Your task to perform on an android device: turn vacation reply on in the gmail app Image 0: 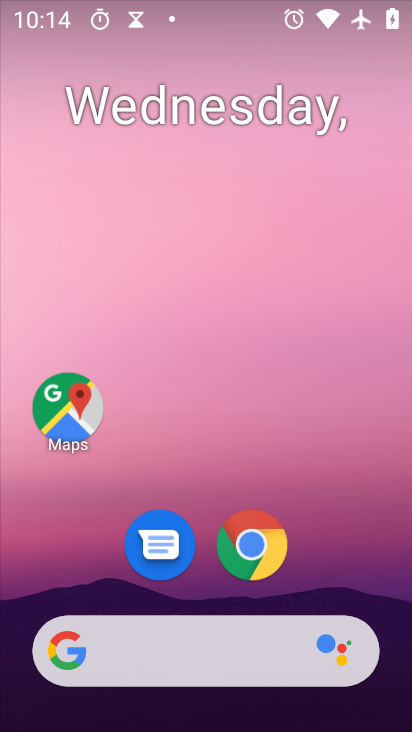
Step 0: press home button
Your task to perform on an android device: turn vacation reply on in the gmail app Image 1: 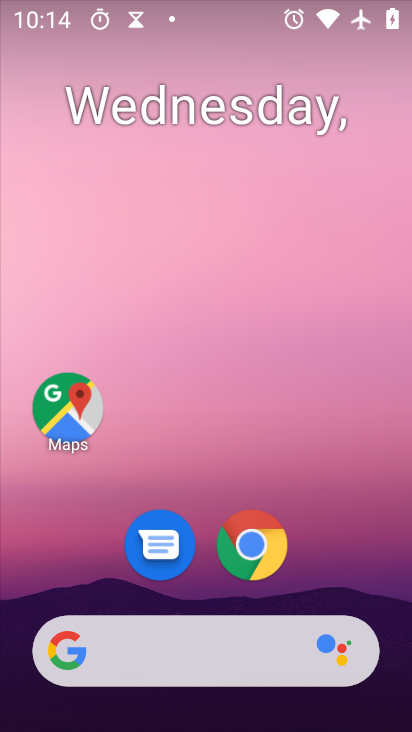
Step 1: drag from (198, 648) to (282, 169)
Your task to perform on an android device: turn vacation reply on in the gmail app Image 2: 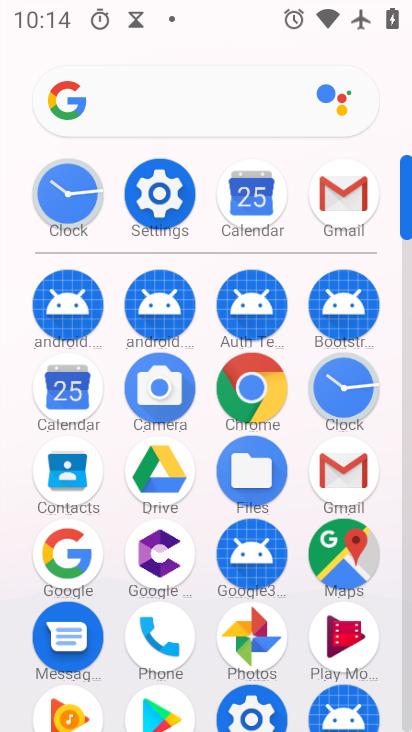
Step 2: click (347, 199)
Your task to perform on an android device: turn vacation reply on in the gmail app Image 3: 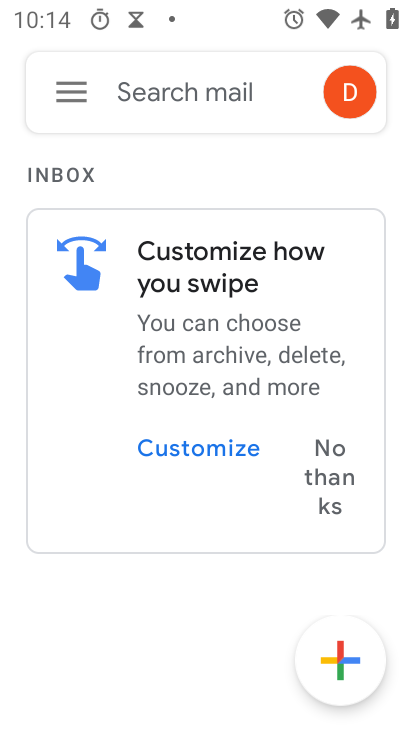
Step 3: click (79, 91)
Your task to perform on an android device: turn vacation reply on in the gmail app Image 4: 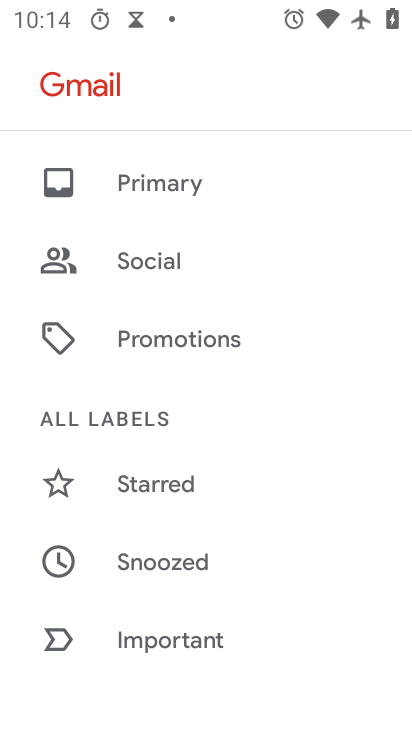
Step 4: drag from (216, 672) to (257, 175)
Your task to perform on an android device: turn vacation reply on in the gmail app Image 5: 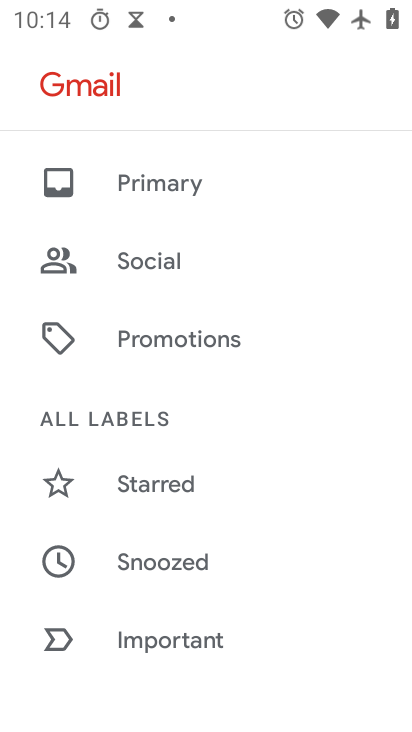
Step 5: drag from (256, 627) to (335, 143)
Your task to perform on an android device: turn vacation reply on in the gmail app Image 6: 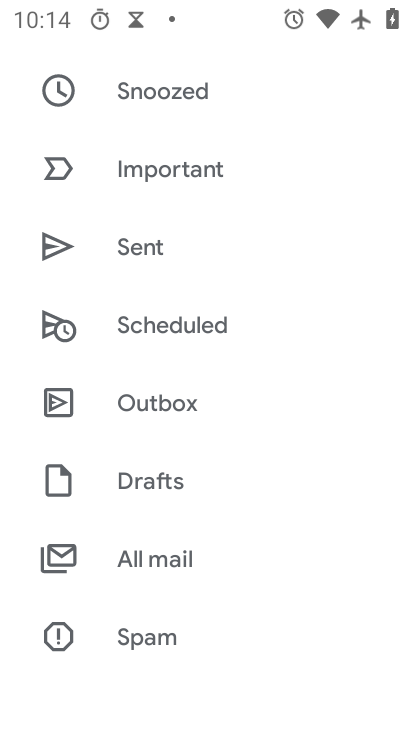
Step 6: drag from (210, 662) to (297, 121)
Your task to perform on an android device: turn vacation reply on in the gmail app Image 7: 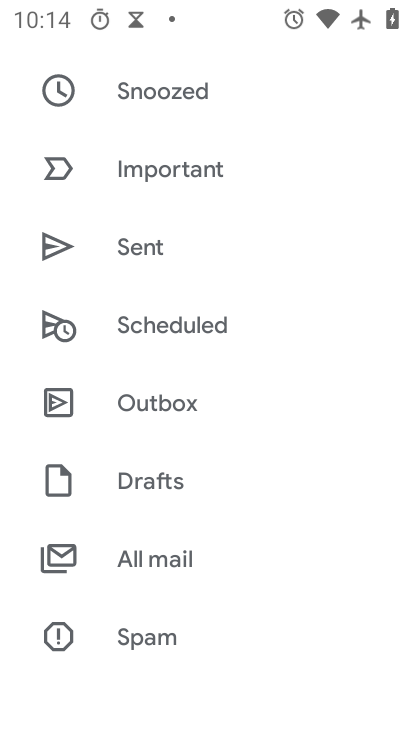
Step 7: drag from (152, 672) to (212, 153)
Your task to perform on an android device: turn vacation reply on in the gmail app Image 8: 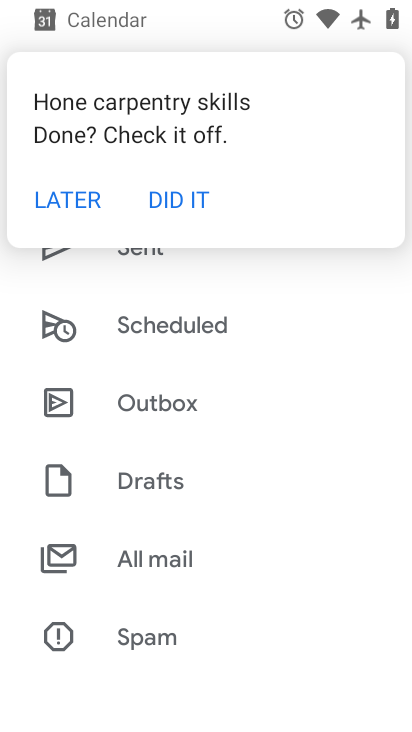
Step 8: drag from (184, 667) to (315, 266)
Your task to perform on an android device: turn vacation reply on in the gmail app Image 9: 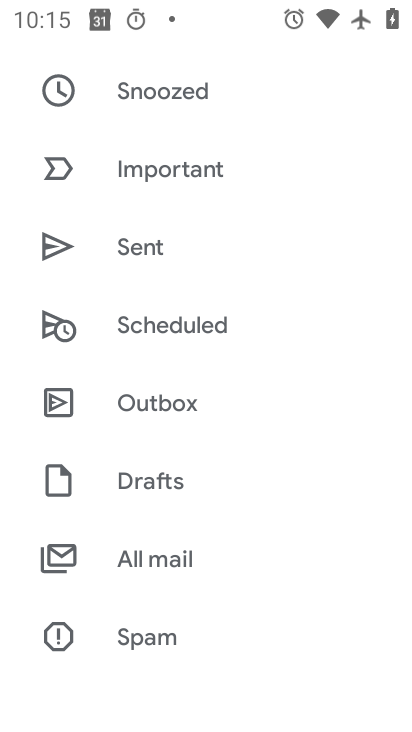
Step 9: drag from (184, 600) to (286, 110)
Your task to perform on an android device: turn vacation reply on in the gmail app Image 10: 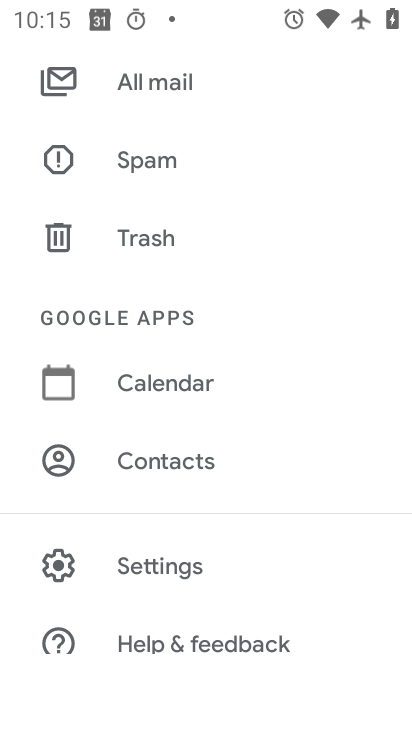
Step 10: click (172, 570)
Your task to perform on an android device: turn vacation reply on in the gmail app Image 11: 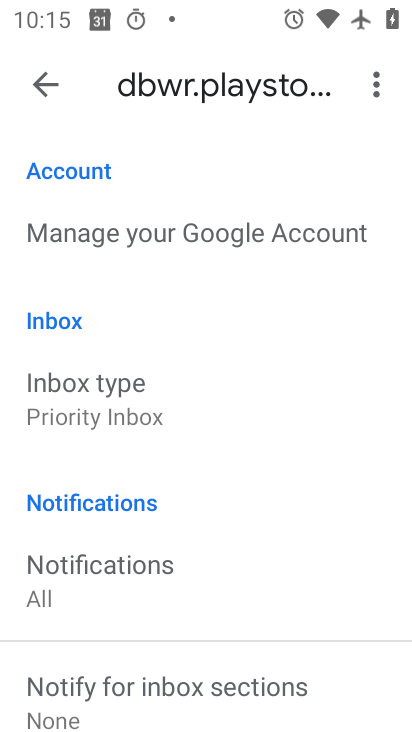
Step 11: drag from (198, 606) to (278, 142)
Your task to perform on an android device: turn vacation reply on in the gmail app Image 12: 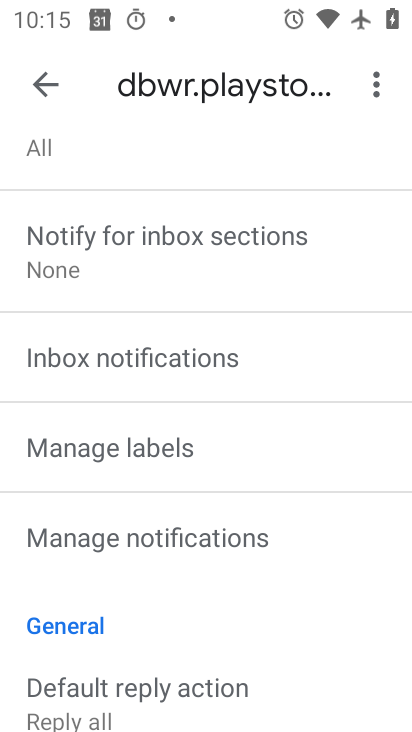
Step 12: drag from (188, 618) to (281, 121)
Your task to perform on an android device: turn vacation reply on in the gmail app Image 13: 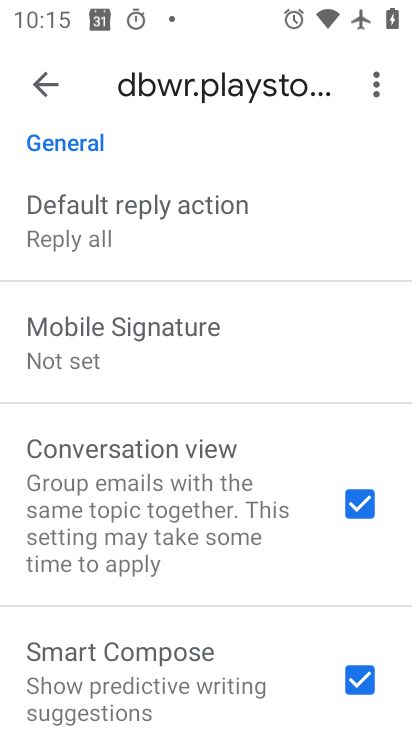
Step 13: drag from (181, 693) to (259, 206)
Your task to perform on an android device: turn vacation reply on in the gmail app Image 14: 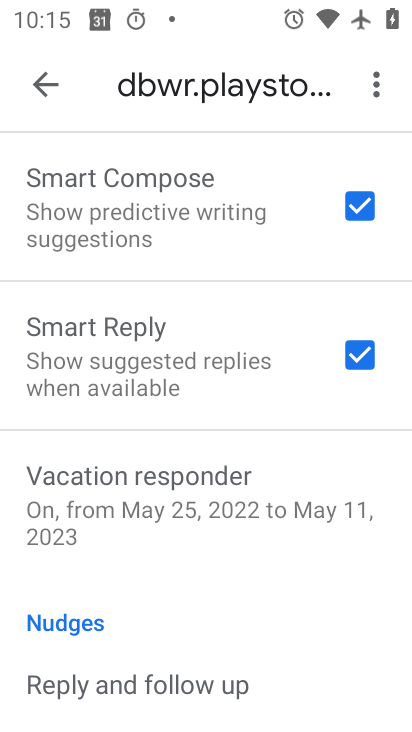
Step 14: click (149, 483)
Your task to perform on an android device: turn vacation reply on in the gmail app Image 15: 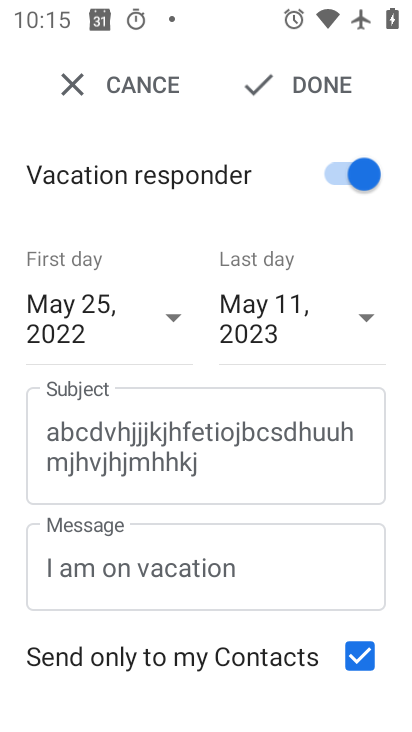
Step 15: task complete